Your task to perform on an android device: turn off priority inbox in the gmail app Image 0: 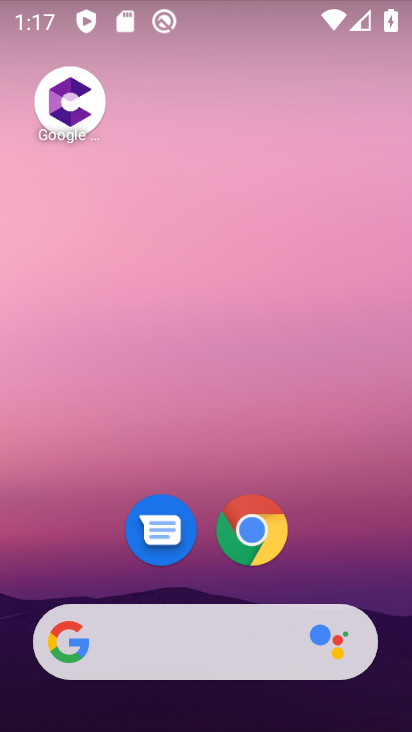
Step 0: drag from (214, 725) to (205, 0)
Your task to perform on an android device: turn off priority inbox in the gmail app Image 1: 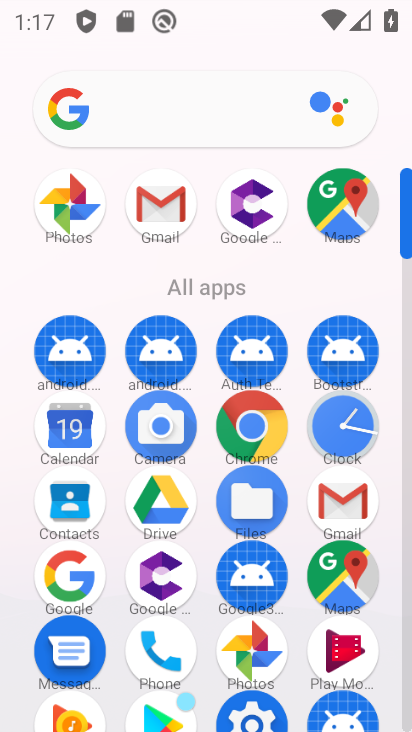
Step 1: click (344, 499)
Your task to perform on an android device: turn off priority inbox in the gmail app Image 2: 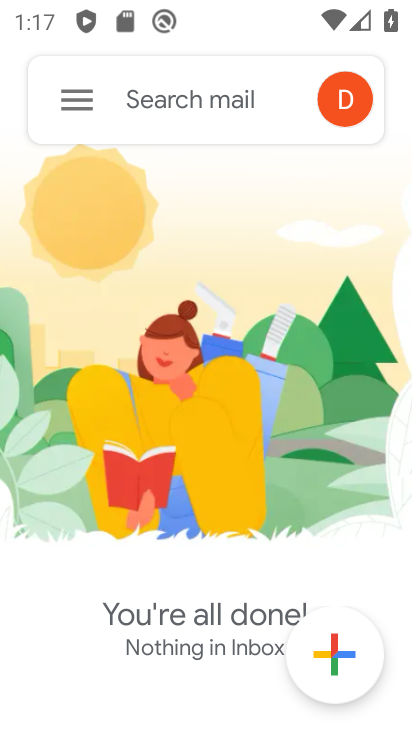
Step 2: click (71, 100)
Your task to perform on an android device: turn off priority inbox in the gmail app Image 3: 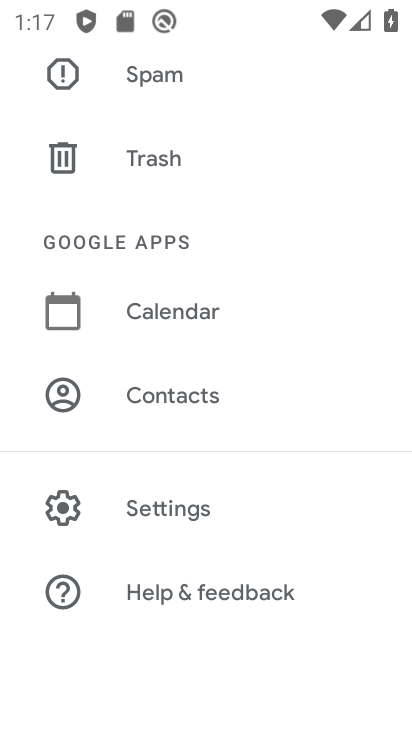
Step 3: click (172, 503)
Your task to perform on an android device: turn off priority inbox in the gmail app Image 4: 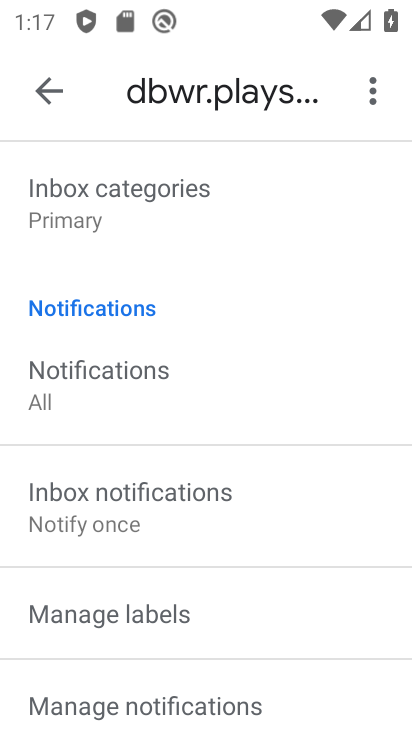
Step 4: task complete